Your task to perform on an android device: Clear all items from cart on bestbuy. Add razer deathadder to the cart on bestbuy Image 0: 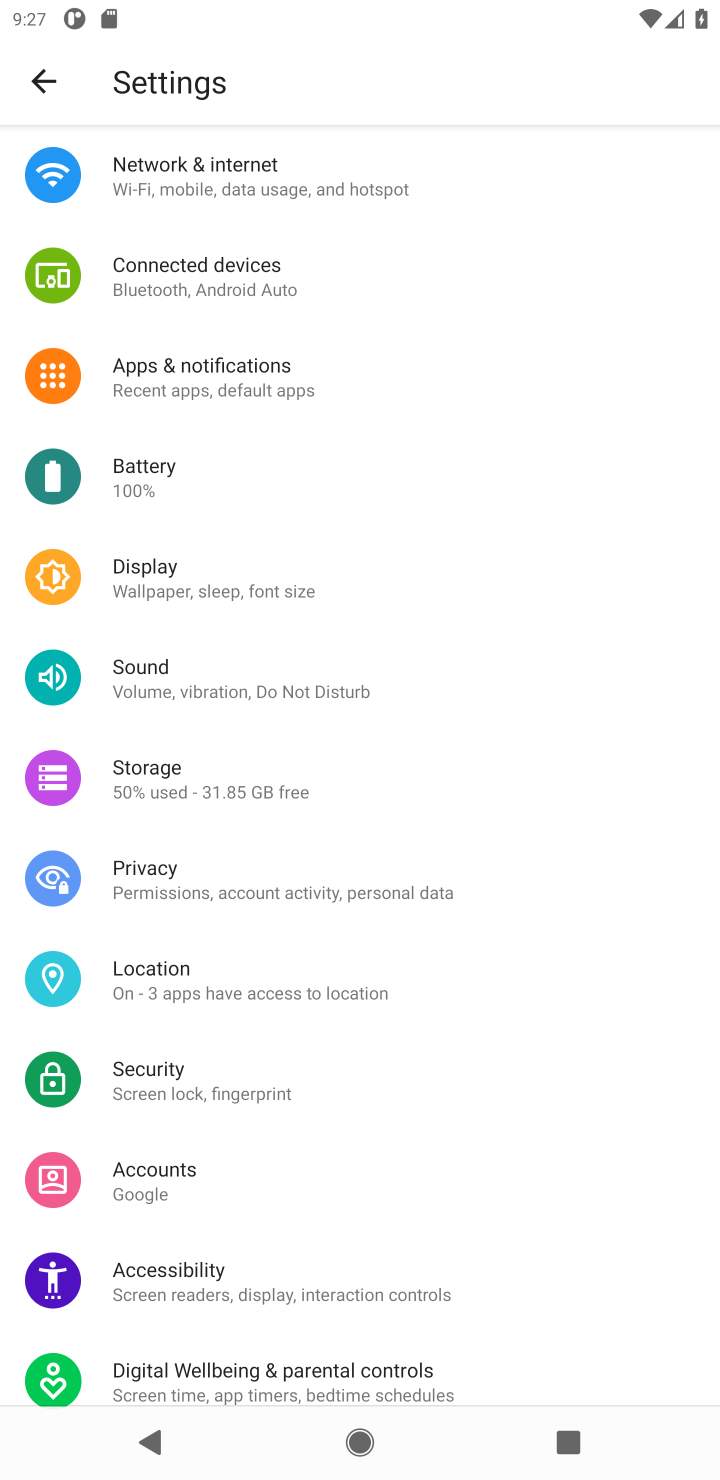
Step 0: press home button
Your task to perform on an android device: Clear all items from cart on bestbuy. Add razer deathadder to the cart on bestbuy Image 1: 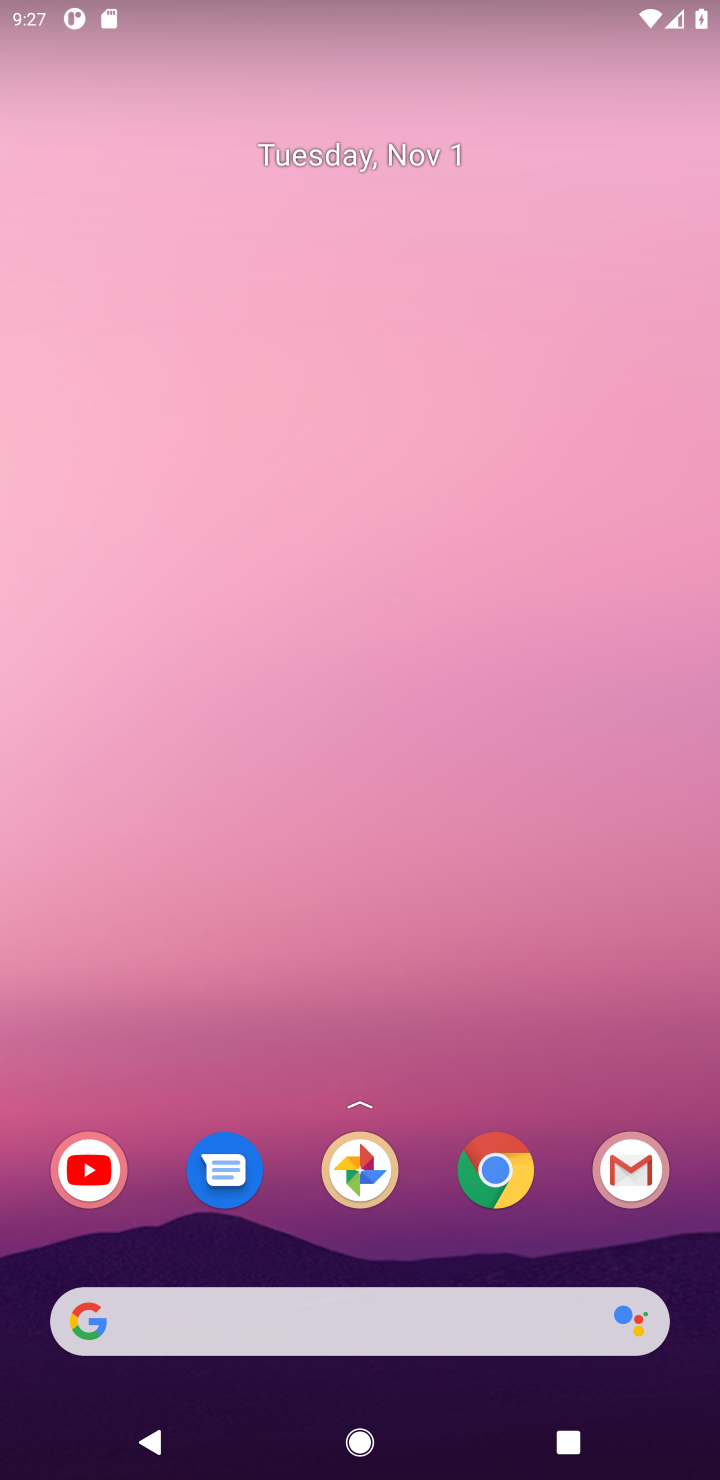
Step 1: click (515, 1186)
Your task to perform on an android device: Clear all items from cart on bestbuy. Add razer deathadder to the cart on bestbuy Image 2: 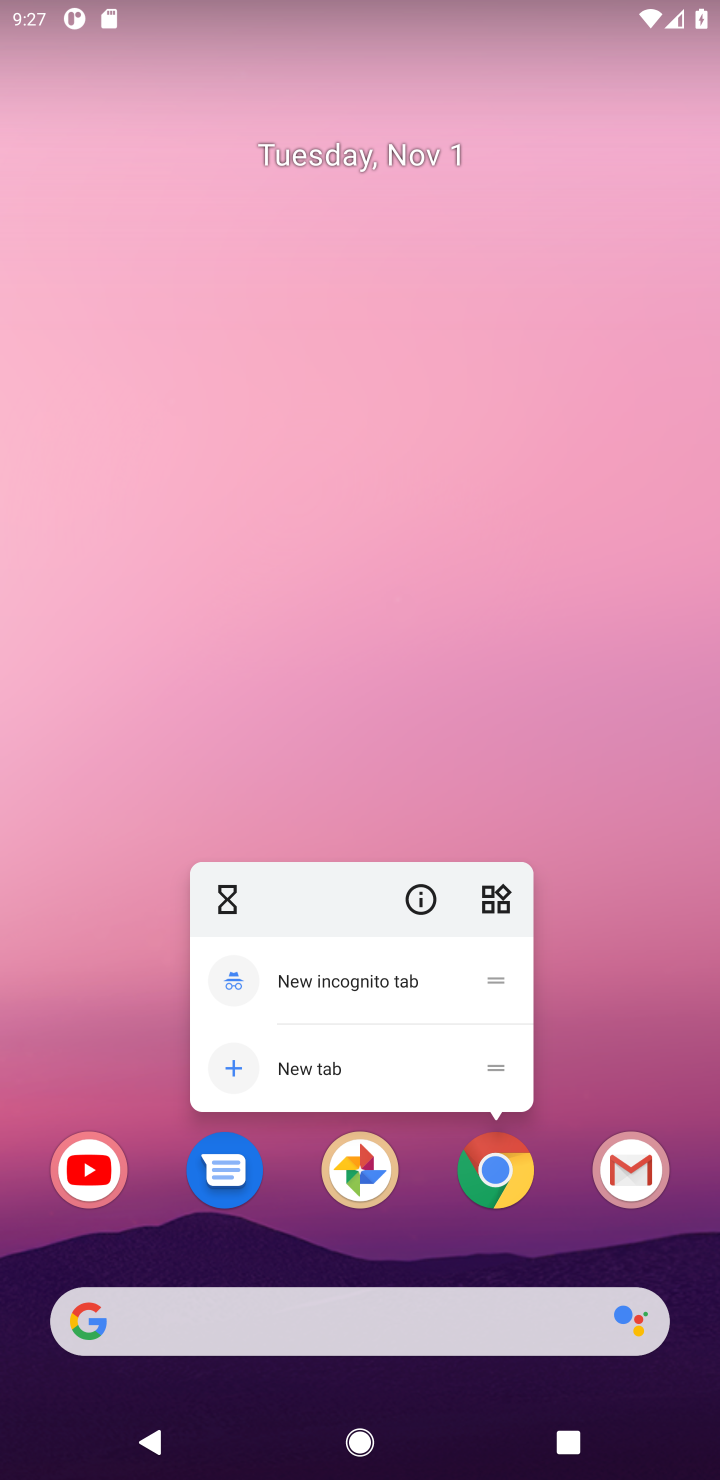
Step 2: click (513, 1187)
Your task to perform on an android device: Clear all items from cart on bestbuy. Add razer deathadder to the cart on bestbuy Image 3: 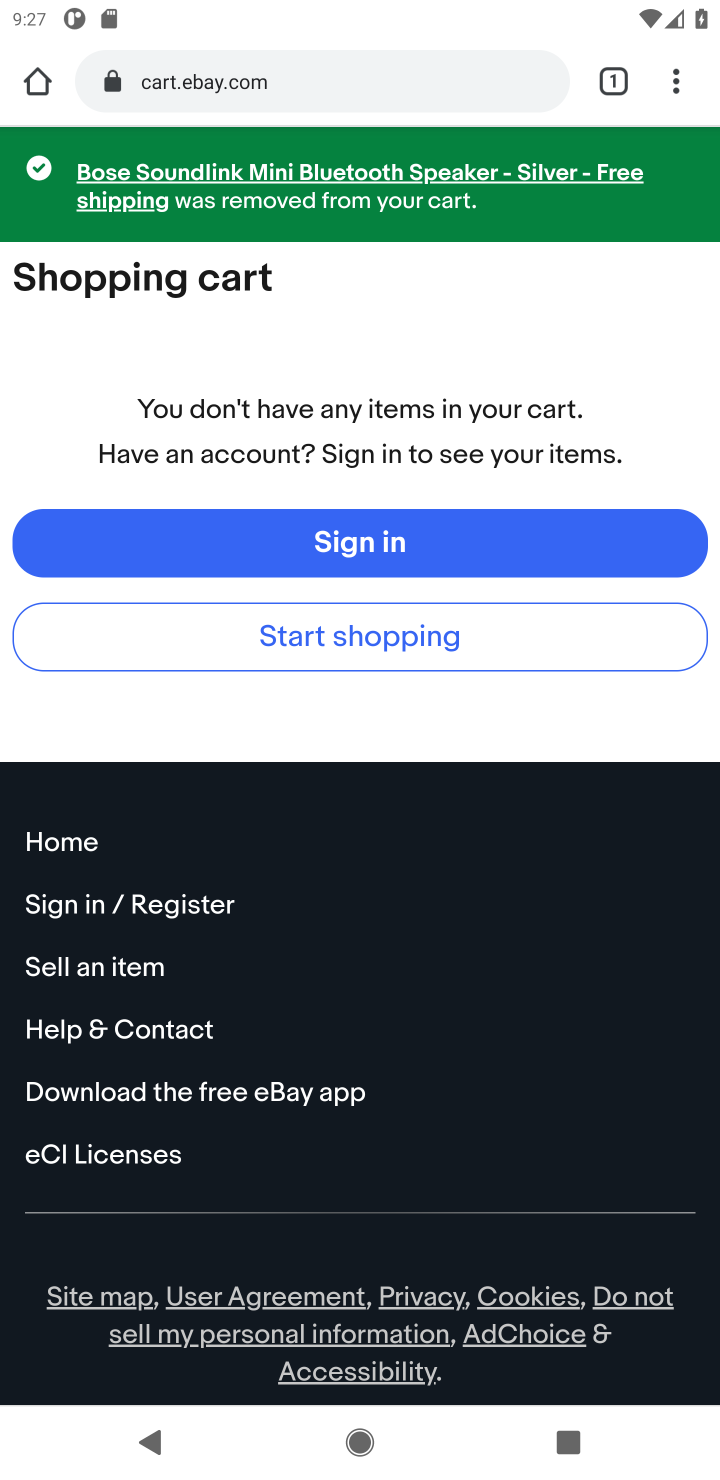
Step 3: click (329, 83)
Your task to perform on an android device: Clear all items from cart on bestbuy. Add razer deathadder to the cart on bestbuy Image 4: 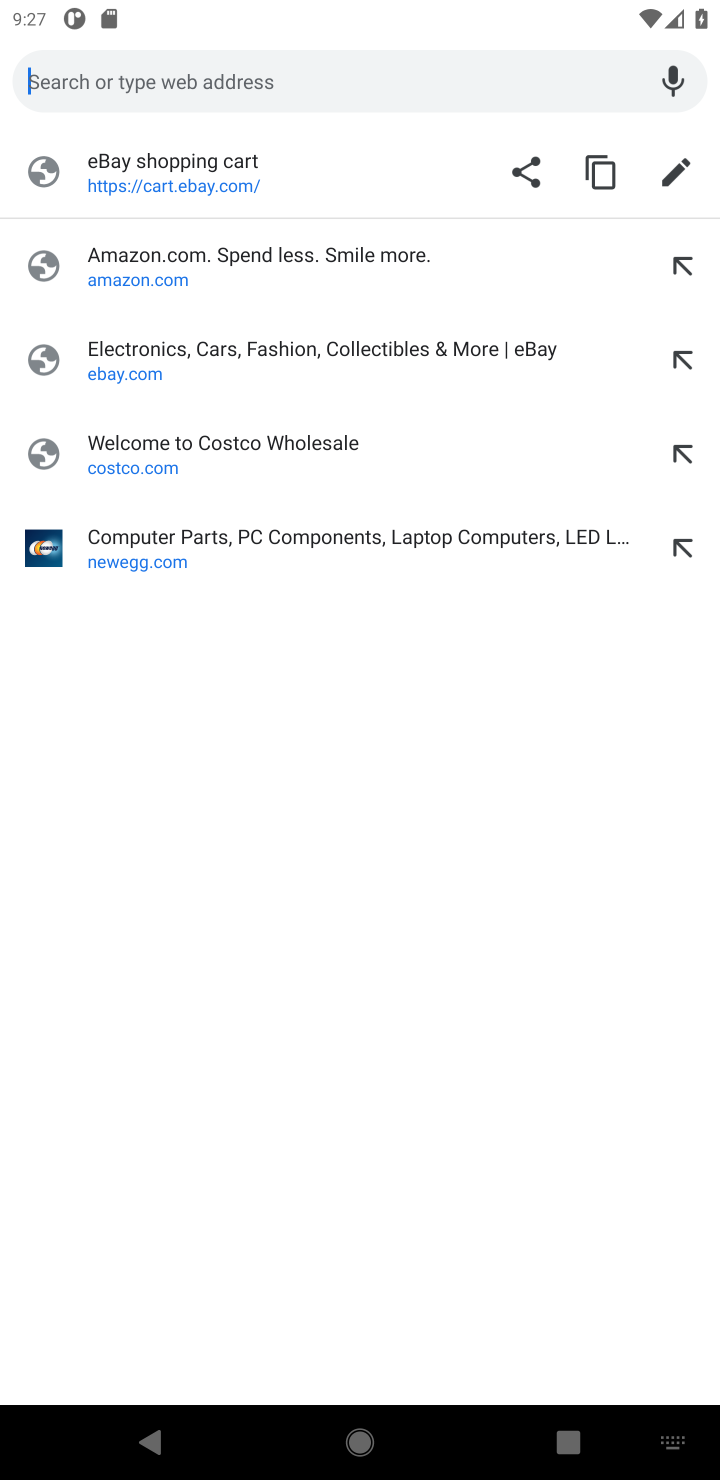
Step 4: type "bestbuy"
Your task to perform on an android device: Clear all items from cart on bestbuy. Add razer deathadder to the cart on bestbuy Image 5: 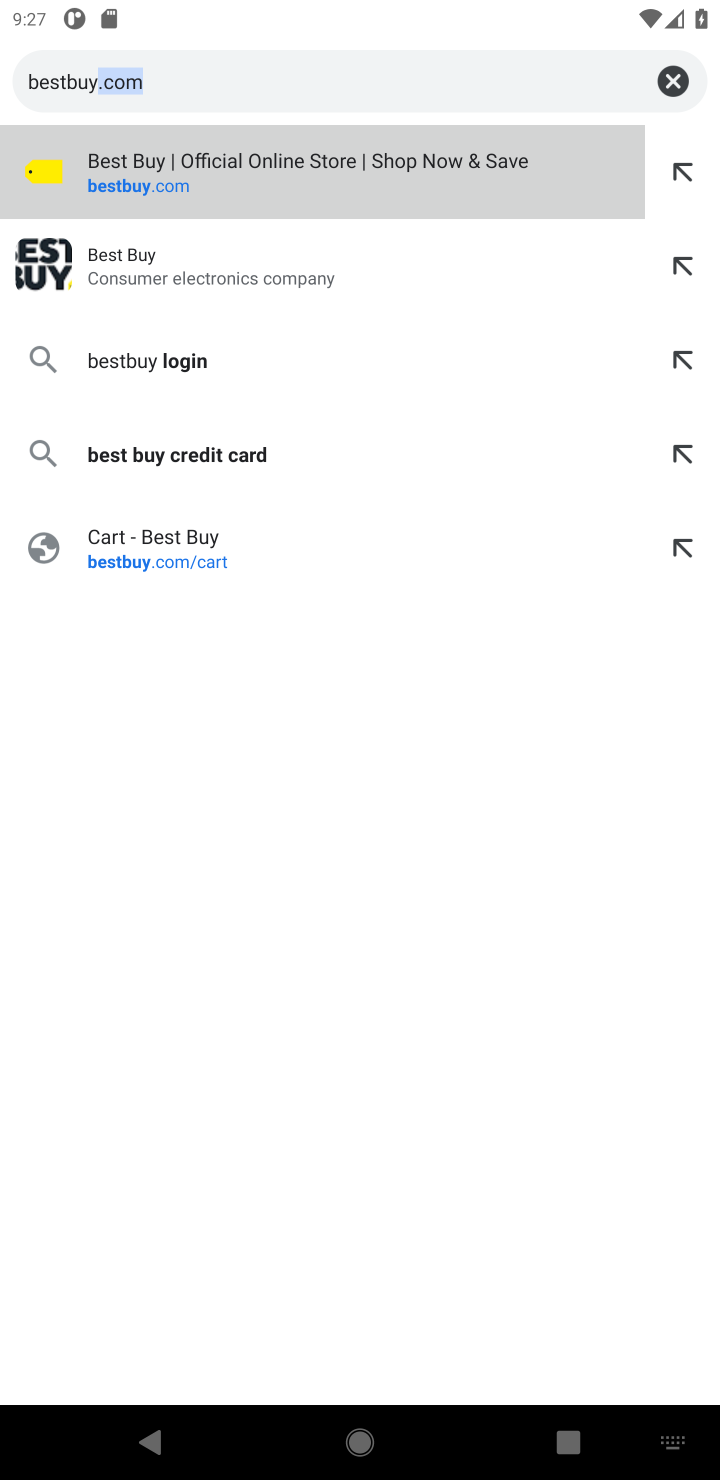
Step 5: type ""
Your task to perform on an android device: Clear all items from cart on bestbuy. Add razer deathadder to the cart on bestbuy Image 6: 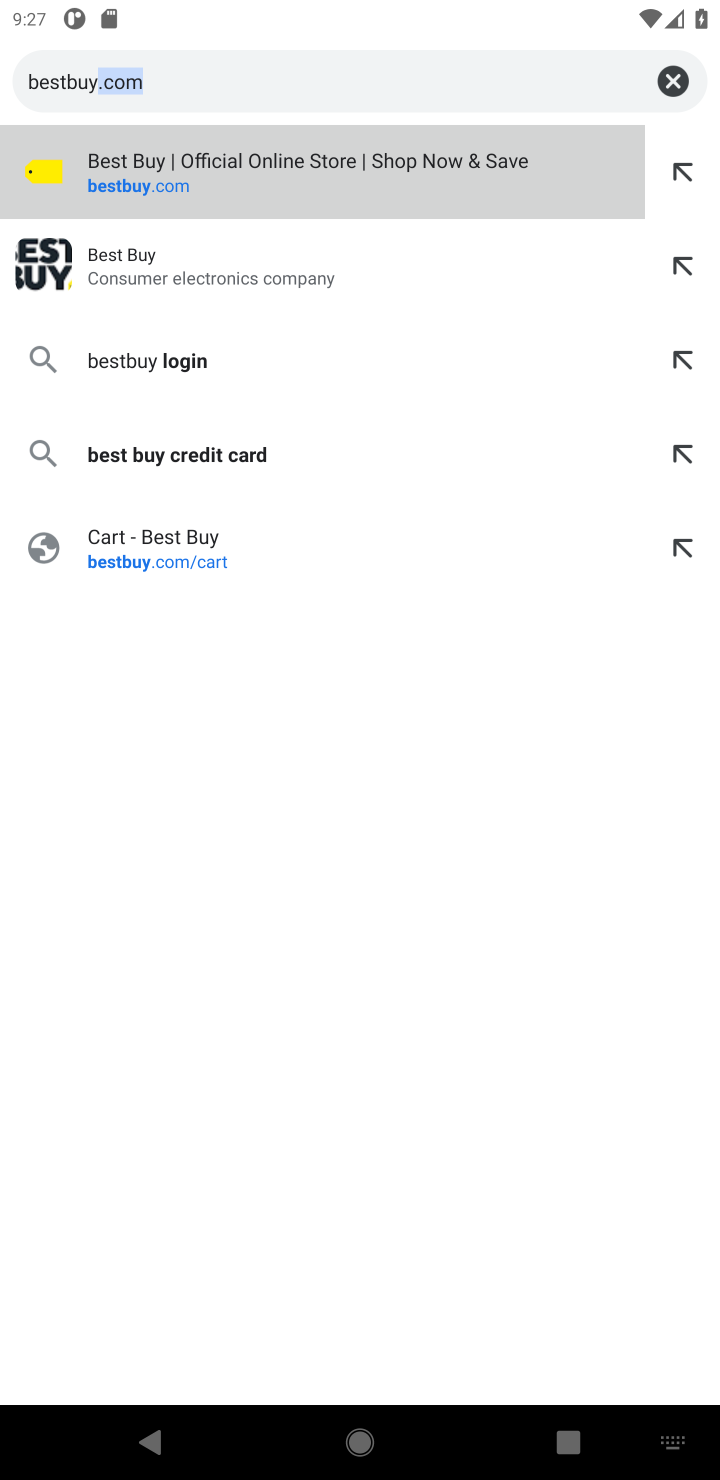
Step 6: press enter
Your task to perform on an android device: Clear all items from cart on bestbuy. Add razer deathadder to the cart on bestbuy Image 7: 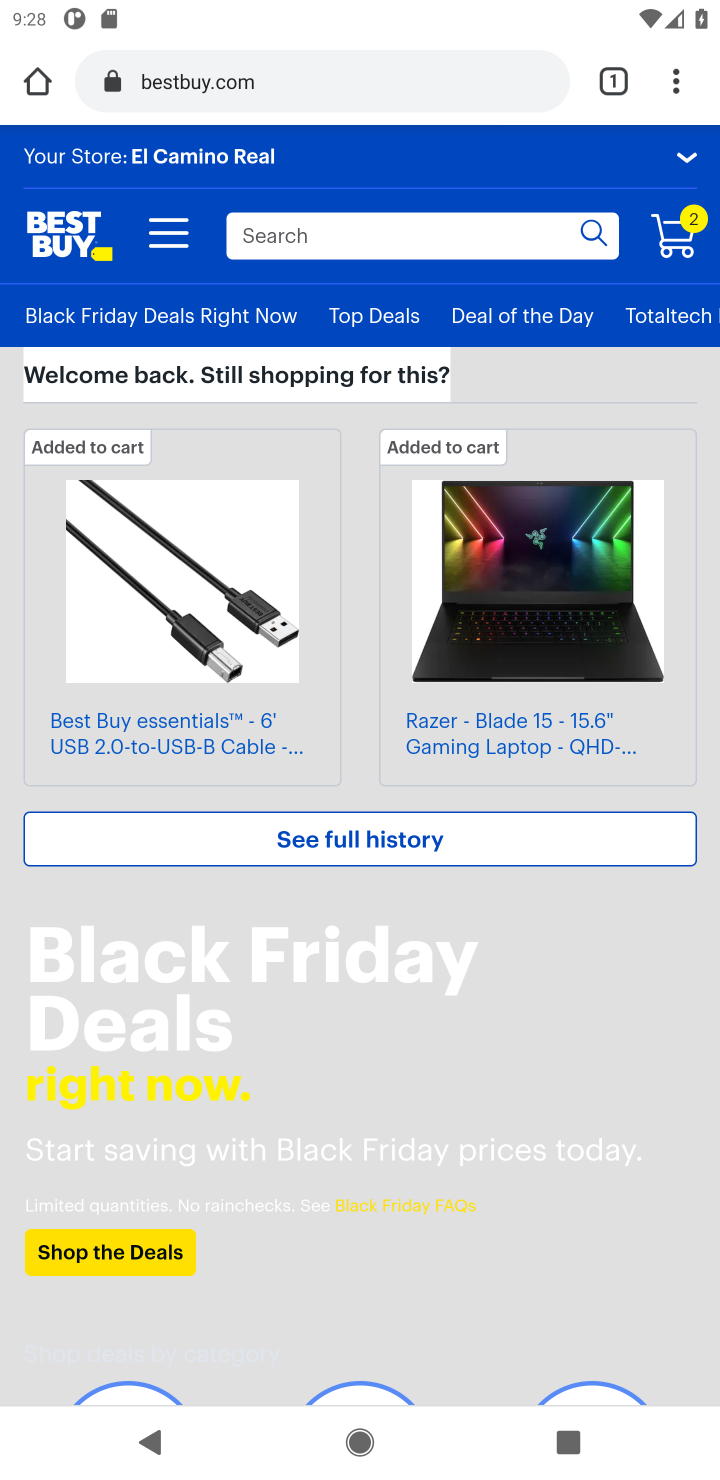
Step 7: click (667, 233)
Your task to perform on an android device: Clear all items from cart on bestbuy. Add razer deathadder to the cart on bestbuy Image 8: 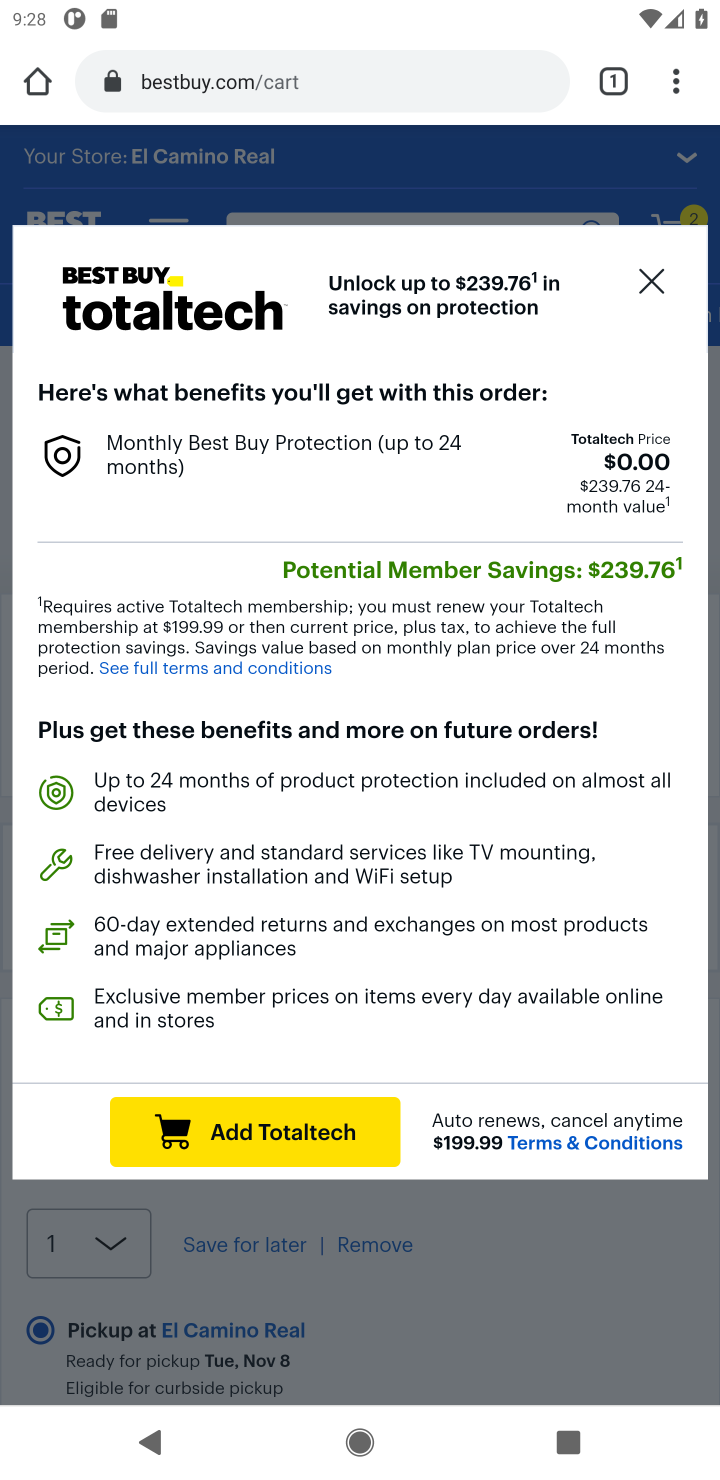
Step 8: click (655, 293)
Your task to perform on an android device: Clear all items from cart on bestbuy. Add razer deathadder to the cart on bestbuy Image 9: 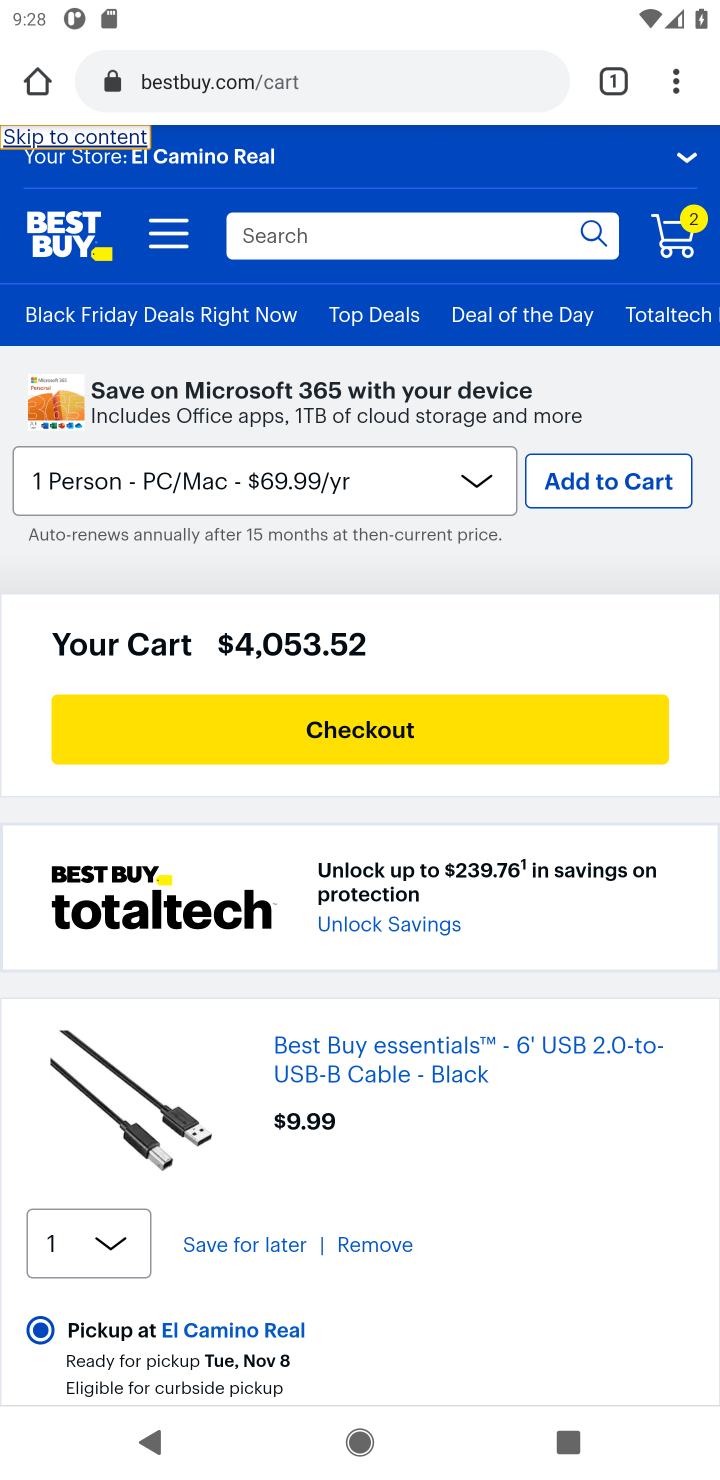
Step 9: click (371, 1251)
Your task to perform on an android device: Clear all items from cart on bestbuy. Add razer deathadder to the cart on bestbuy Image 10: 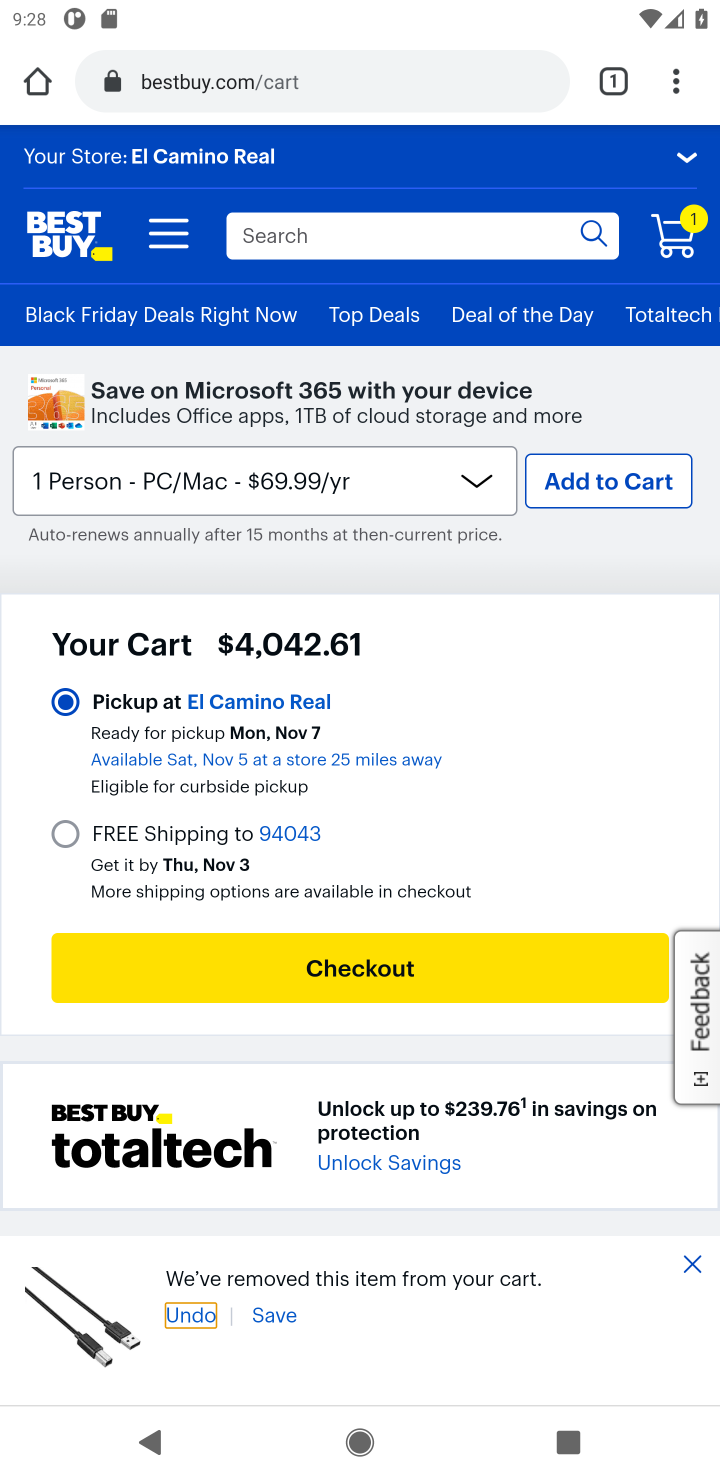
Step 10: drag from (389, 1331) to (355, 625)
Your task to perform on an android device: Clear all items from cart on bestbuy. Add razer deathadder to the cart on bestbuy Image 11: 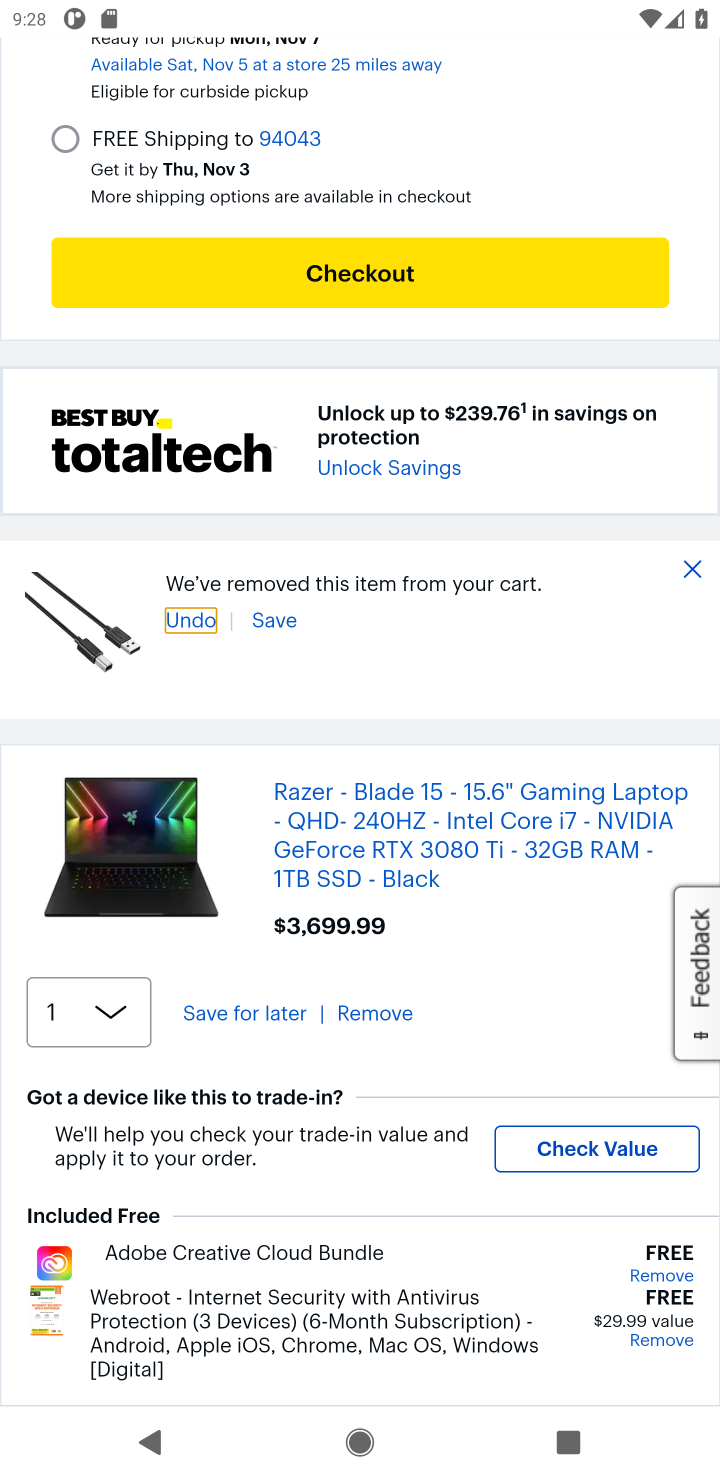
Step 11: click (389, 1008)
Your task to perform on an android device: Clear all items from cart on bestbuy. Add razer deathadder to the cart on bestbuy Image 12: 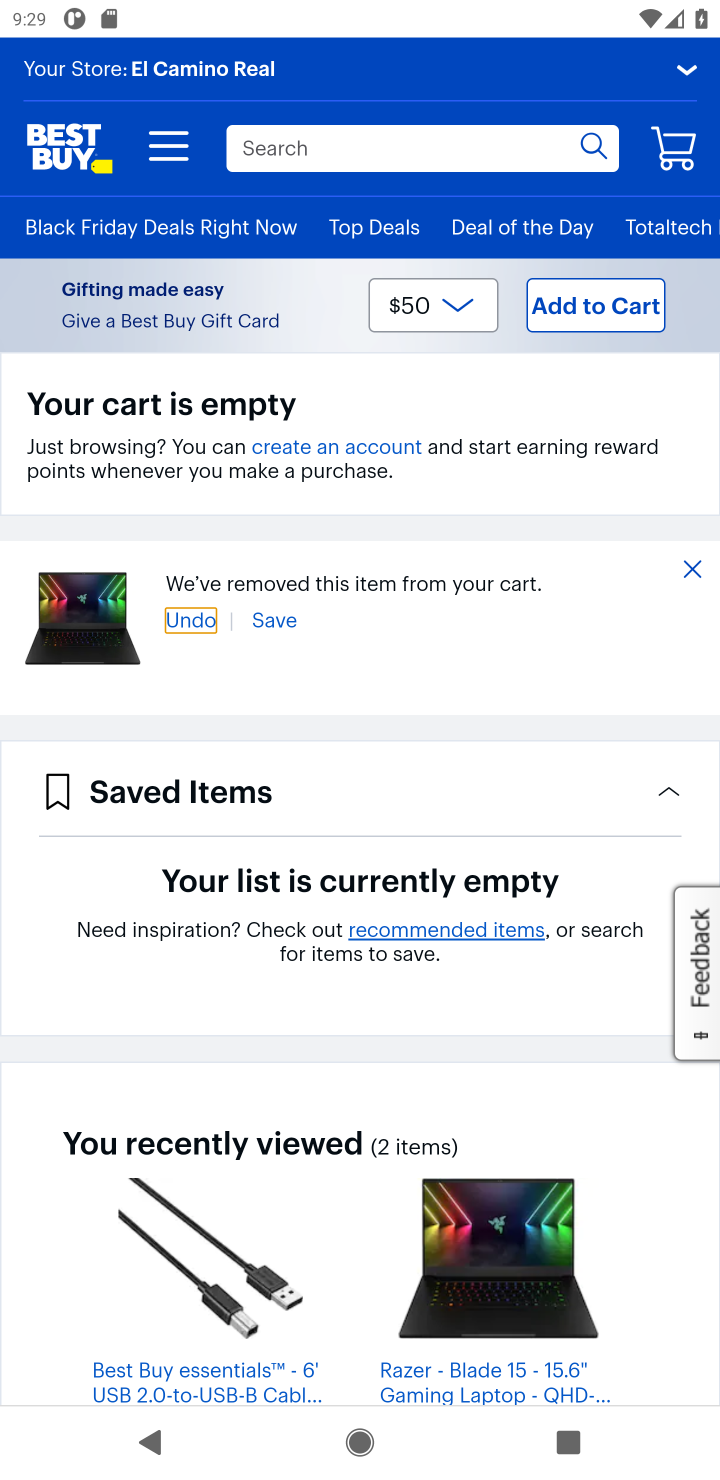
Step 12: click (352, 142)
Your task to perform on an android device: Clear all items from cart on bestbuy. Add razer deathadder to the cart on bestbuy Image 13: 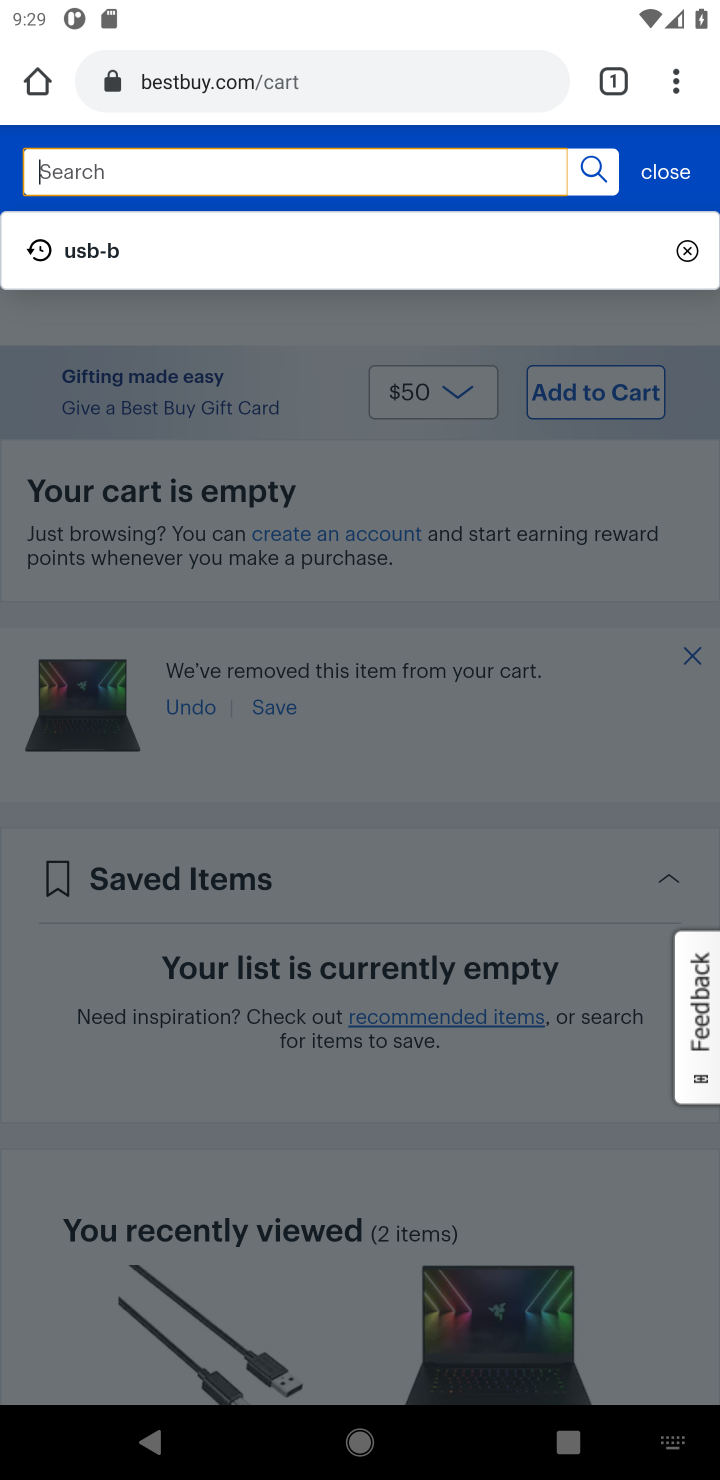
Step 13: type "razer deathadder"
Your task to perform on an android device: Clear all items from cart on bestbuy. Add razer deathadder to the cart on bestbuy Image 14: 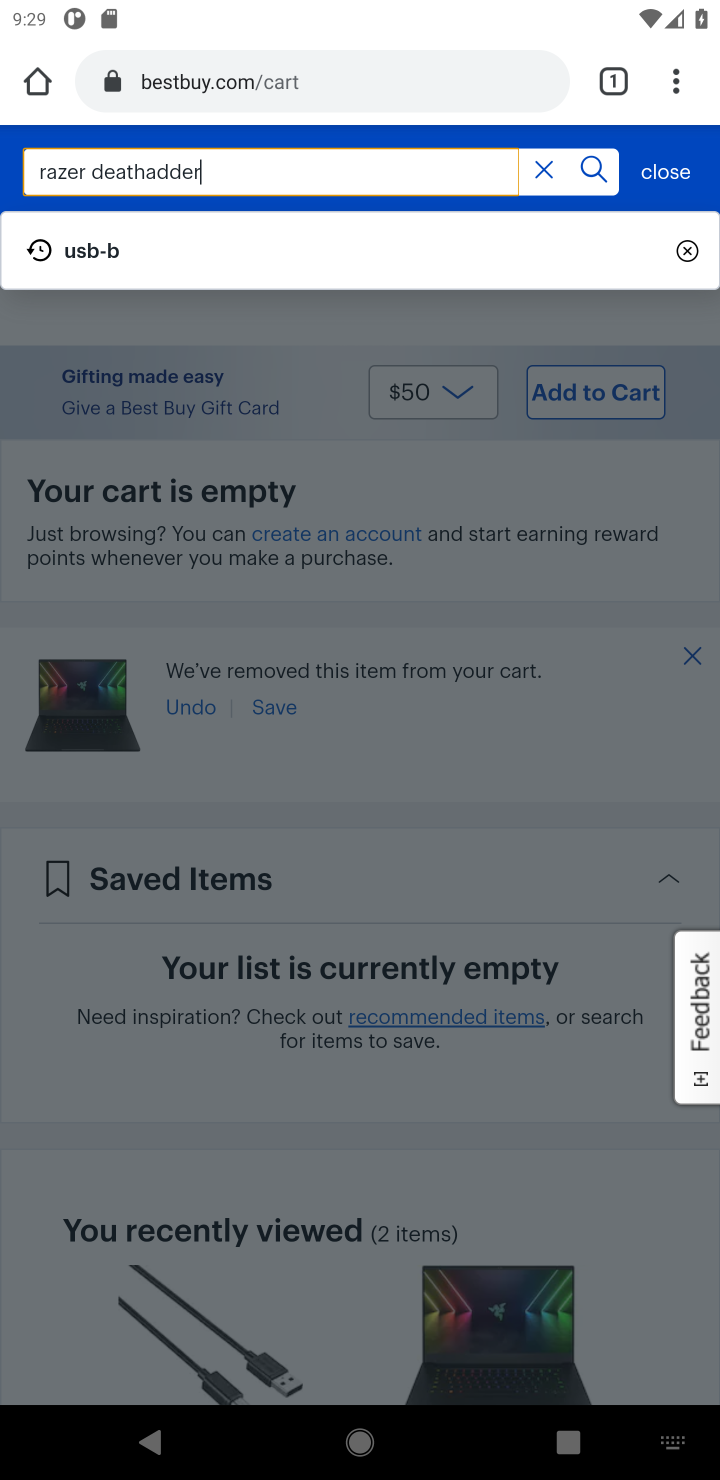
Step 14: type ""
Your task to perform on an android device: Clear all items from cart on bestbuy. Add razer deathadder to the cart on bestbuy Image 15: 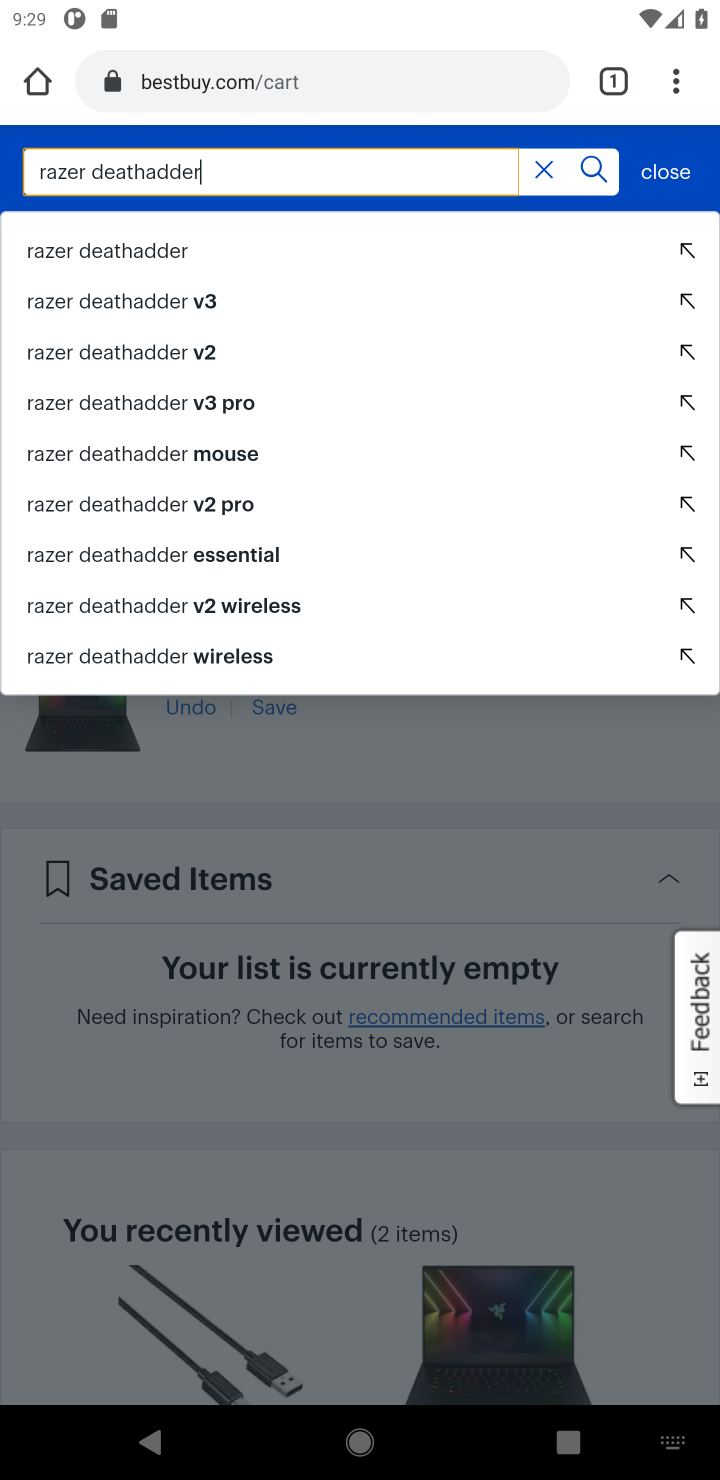
Step 15: press enter
Your task to perform on an android device: Clear all items from cart on bestbuy. Add razer deathadder to the cart on bestbuy Image 16: 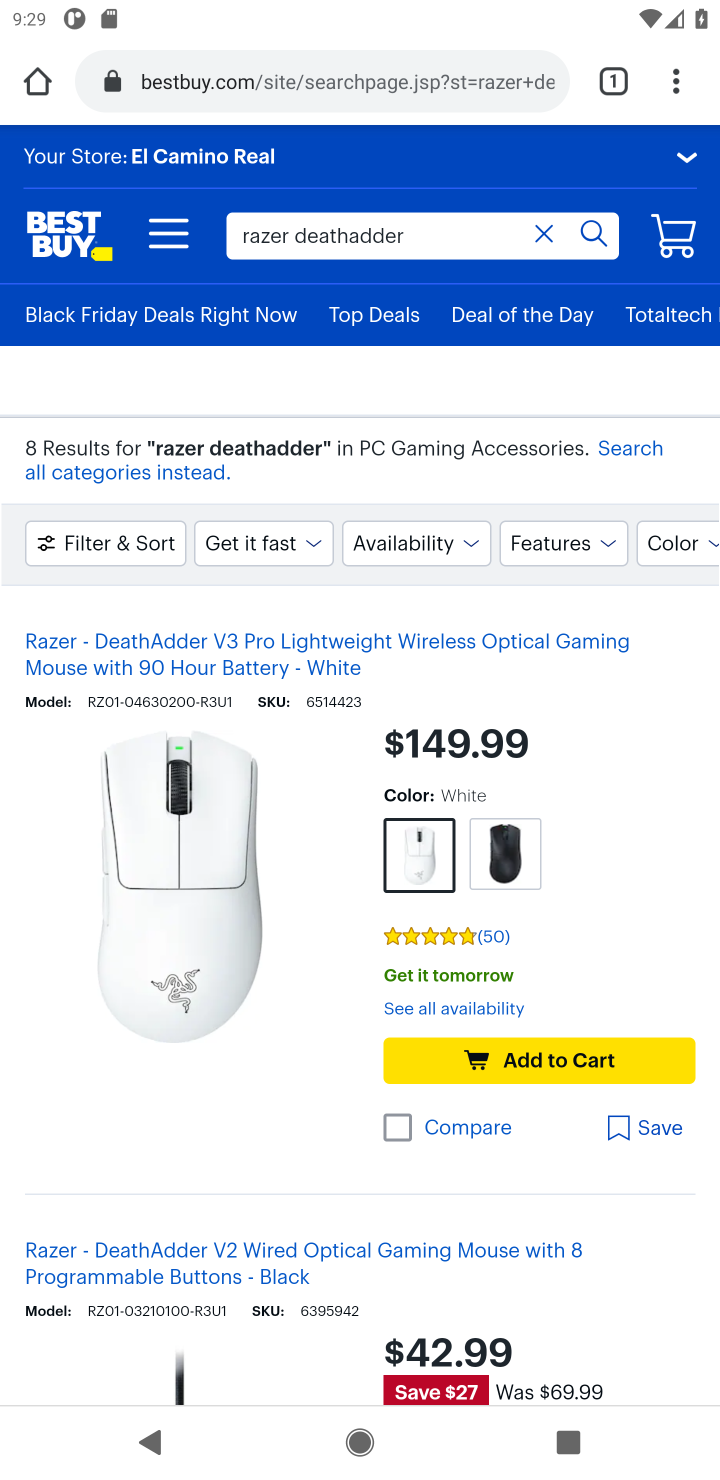
Step 16: click (596, 237)
Your task to perform on an android device: Clear all items from cart on bestbuy. Add razer deathadder to the cart on bestbuy Image 17: 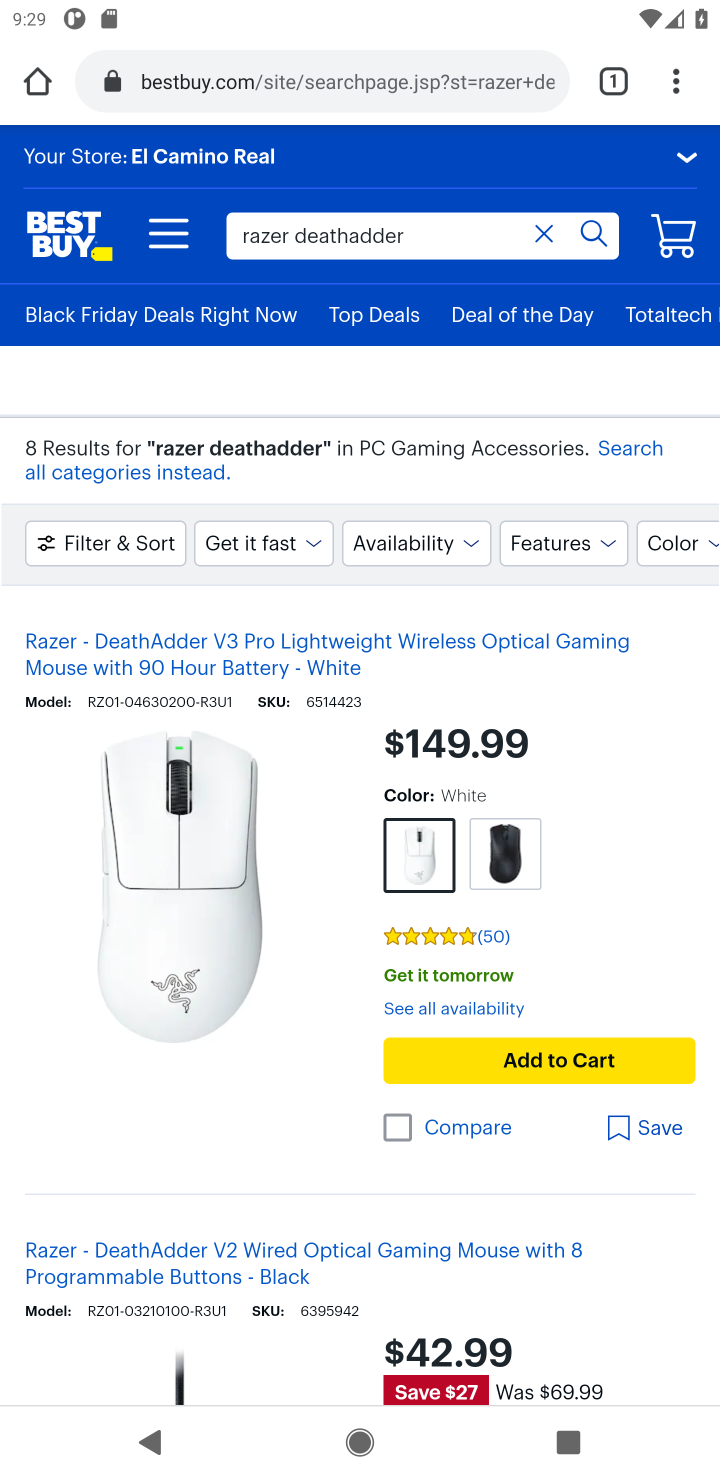
Step 17: click (311, 673)
Your task to perform on an android device: Clear all items from cart on bestbuy. Add razer deathadder to the cart on bestbuy Image 18: 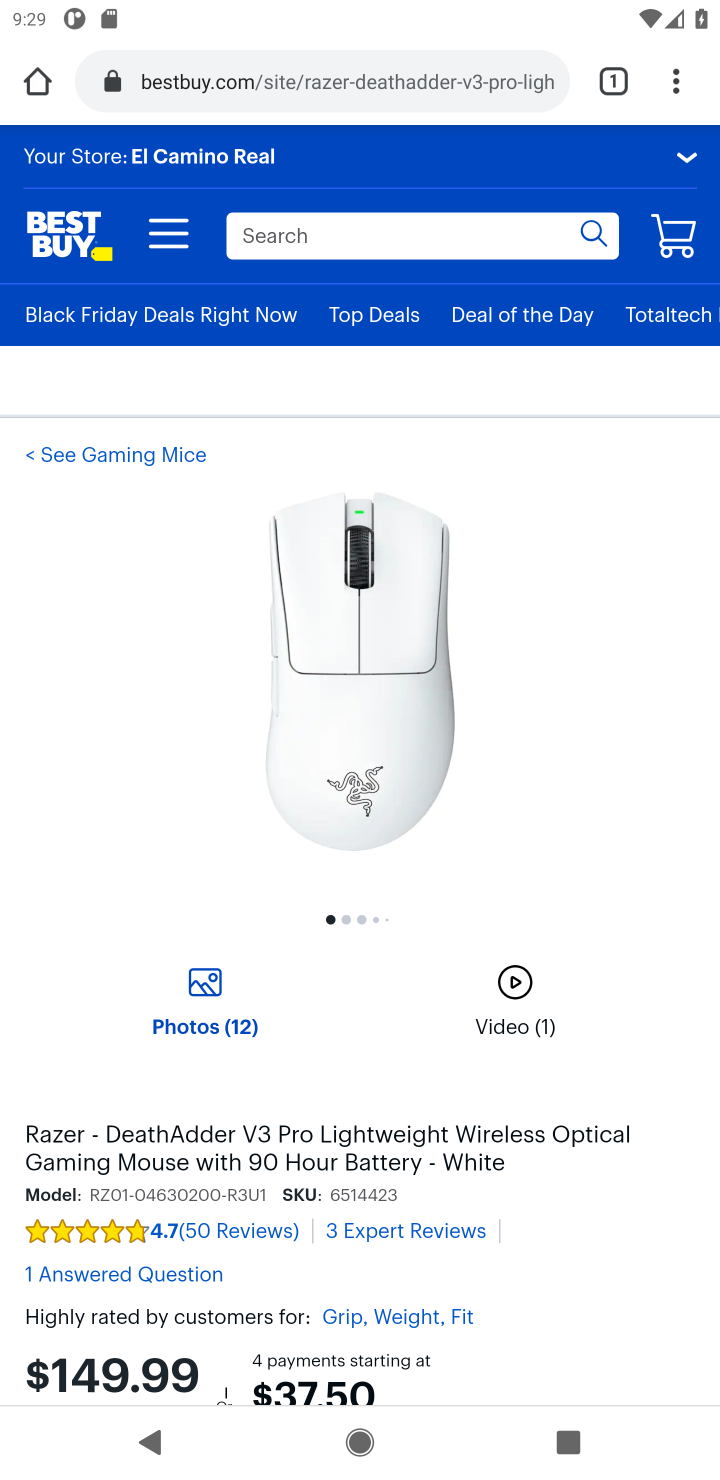
Step 18: drag from (501, 1190) to (411, 327)
Your task to perform on an android device: Clear all items from cart on bestbuy. Add razer deathadder to the cart on bestbuy Image 19: 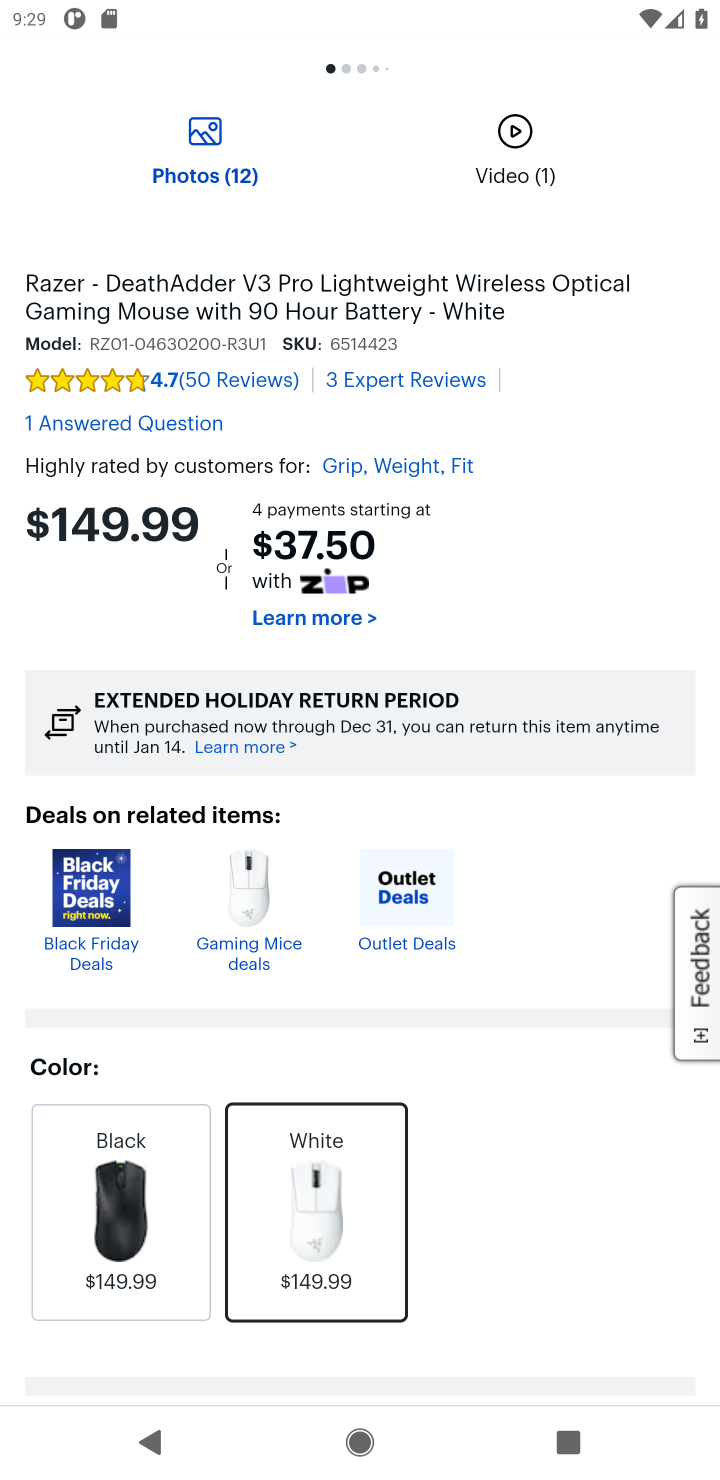
Step 19: drag from (555, 1061) to (454, 500)
Your task to perform on an android device: Clear all items from cart on bestbuy. Add razer deathadder to the cart on bestbuy Image 20: 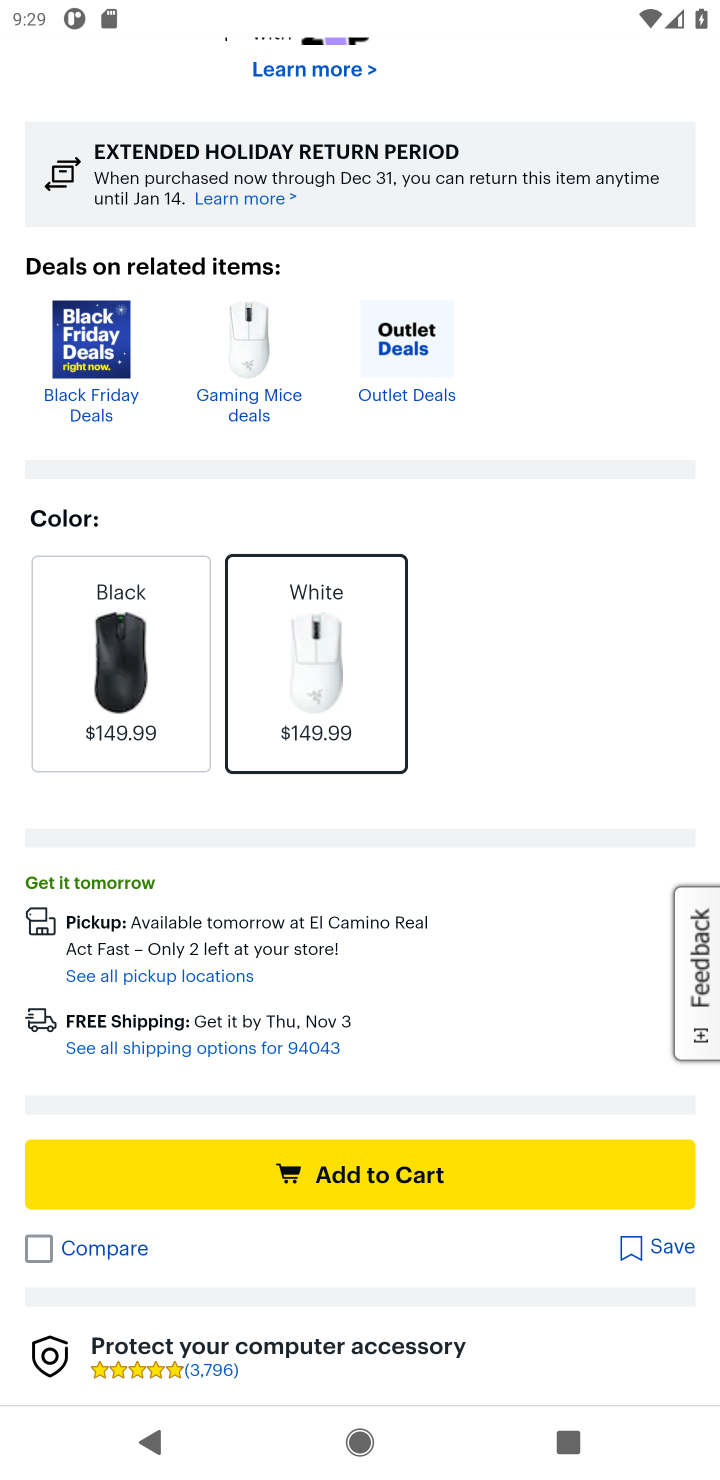
Step 20: click (426, 1175)
Your task to perform on an android device: Clear all items from cart on bestbuy. Add razer deathadder to the cart on bestbuy Image 21: 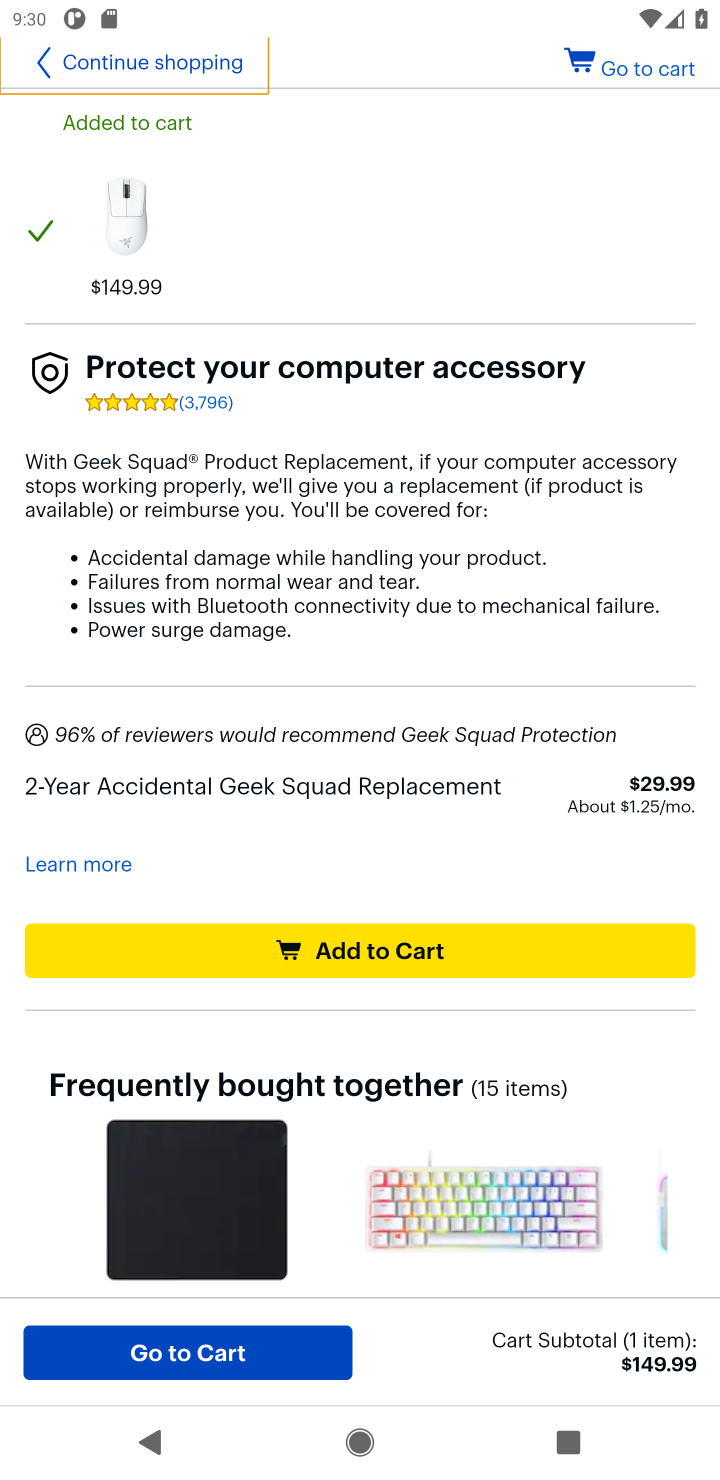
Step 21: task complete